Your task to perform on an android device: turn off sleep mode Image 0: 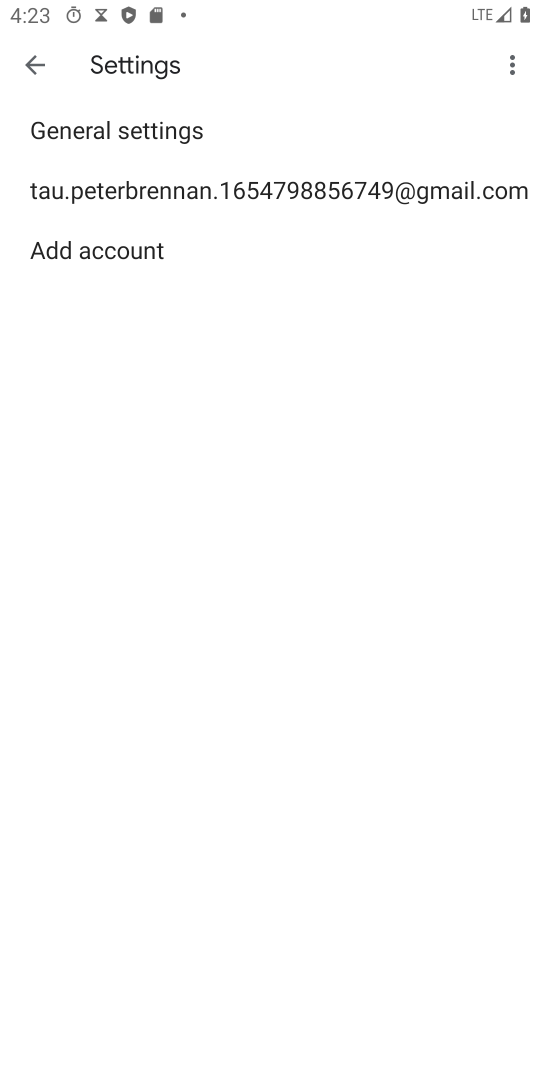
Step 0: press home button
Your task to perform on an android device: turn off sleep mode Image 1: 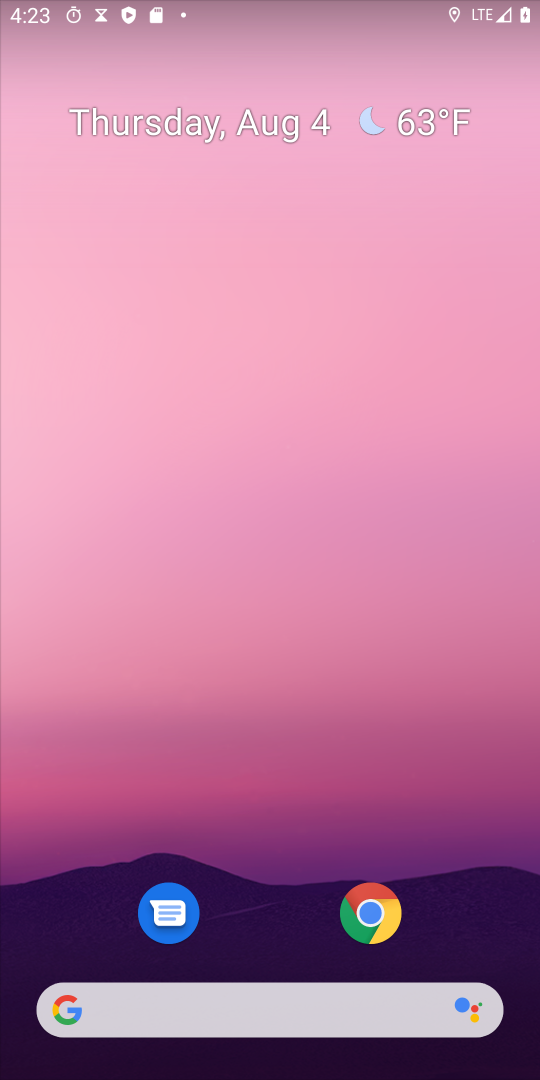
Step 1: drag from (396, 986) to (467, 6)
Your task to perform on an android device: turn off sleep mode Image 2: 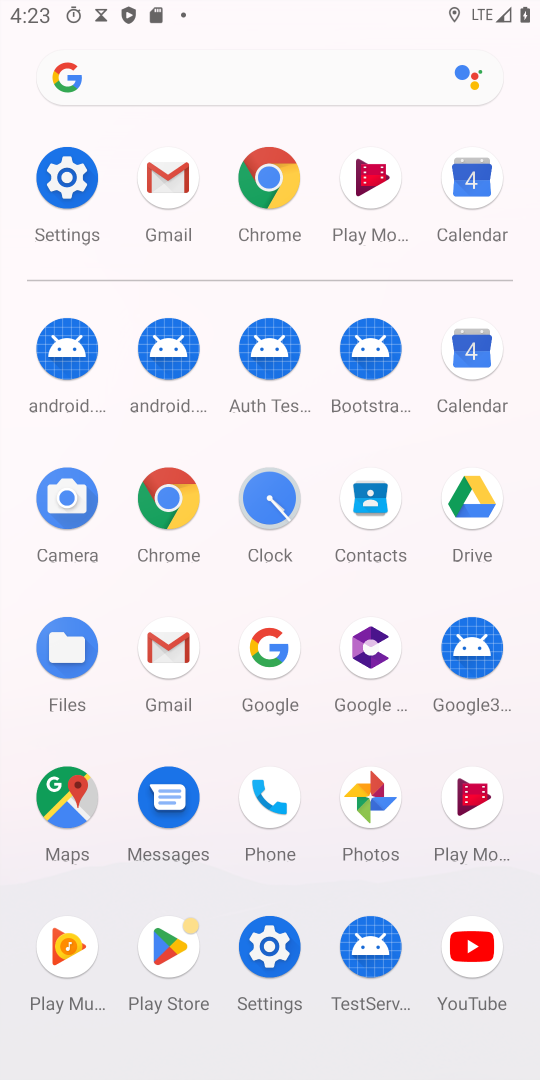
Step 2: click (265, 947)
Your task to perform on an android device: turn off sleep mode Image 3: 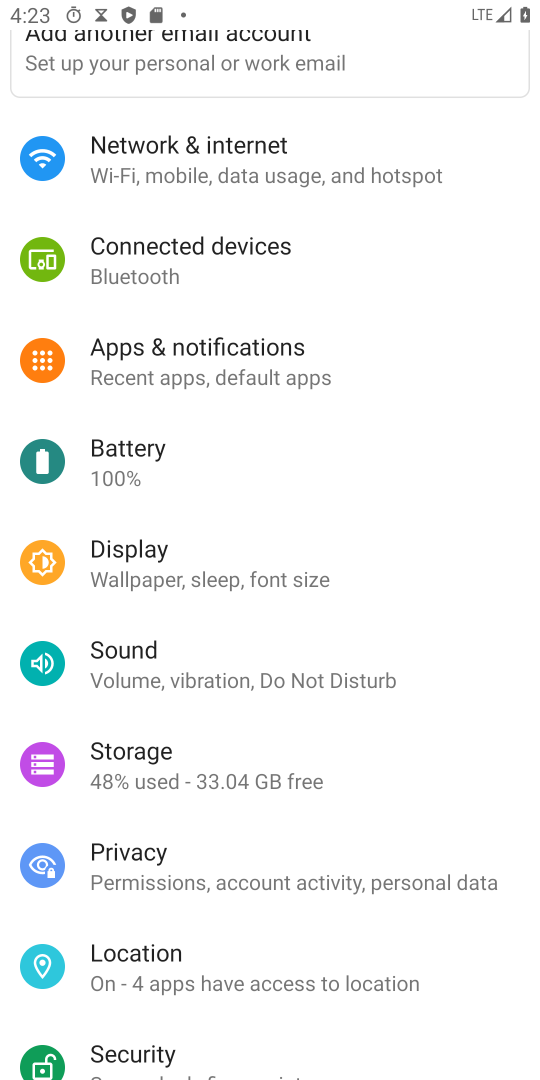
Step 3: task complete